Your task to perform on an android device: turn on data saver in the chrome app Image 0: 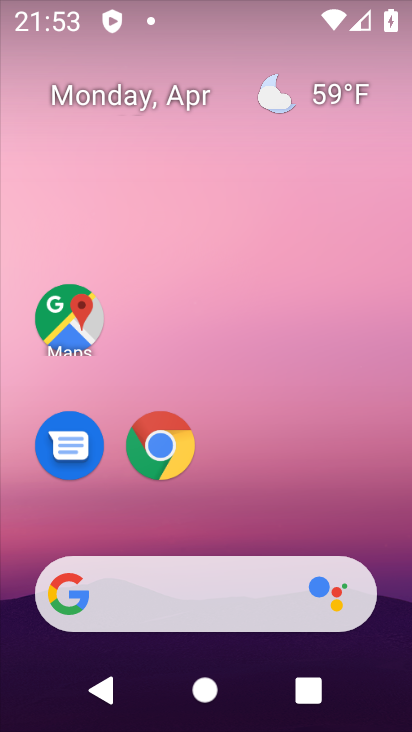
Step 0: click (167, 441)
Your task to perform on an android device: turn on data saver in the chrome app Image 1: 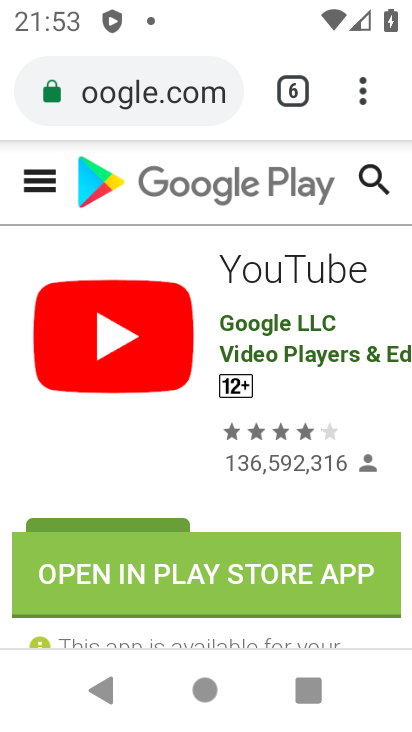
Step 1: click (364, 97)
Your task to perform on an android device: turn on data saver in the chrome app Image 2: 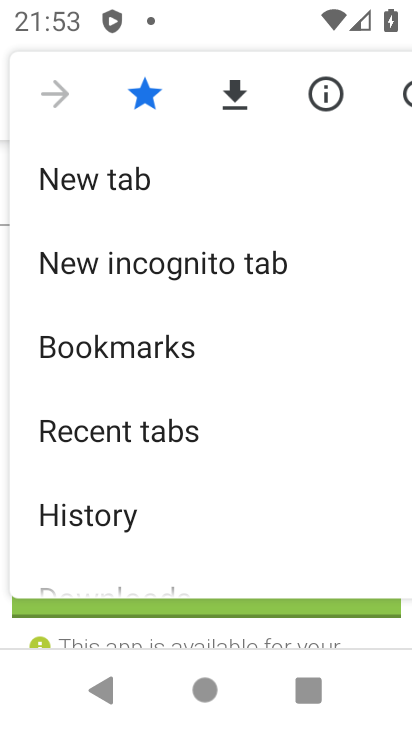
Step 2: drag from (242, 475) to (290, 150)
Your task to perform on an android device: turn on data saver in the chrome app Image 3: 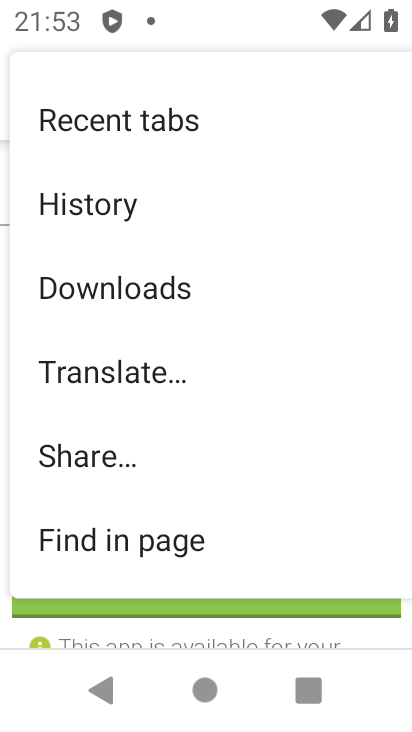
Step 3: drag from (223, 448) to (243, 103)
Your task to perform on an android device: turn on data saver in the chrome app Image 4: 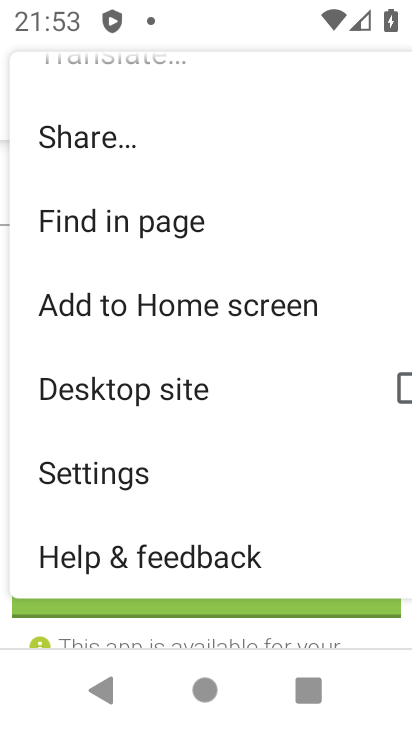
Step 4: click (158, 470)
Your task to perform on an android device: turn on data saver in the chrome app Image 5: 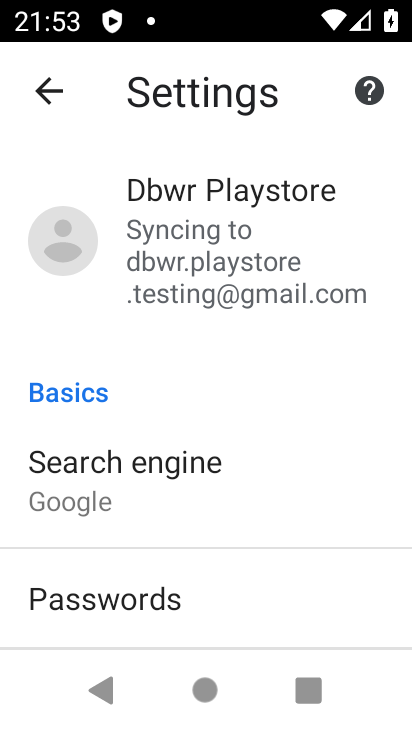
Step 5: drag from (233, 558) to (284, 221)
Your task to perform on an android device: turn on data saver in the chrome app Image 6: 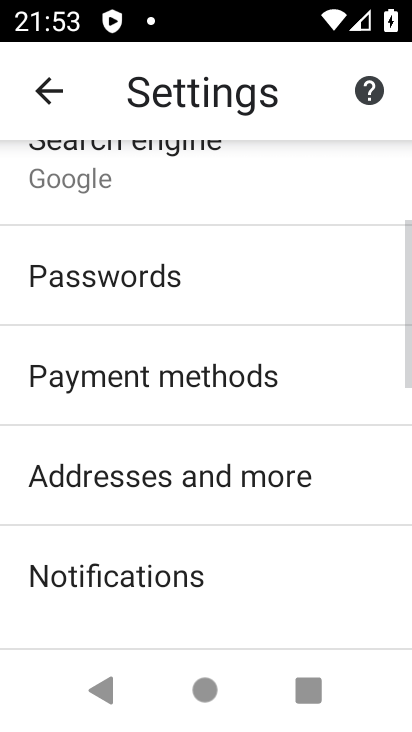
Step 6: drag from (217, 597) to (263, 271)
Your task to perform on an android device: turn on data saver in the chrome app Image 7: 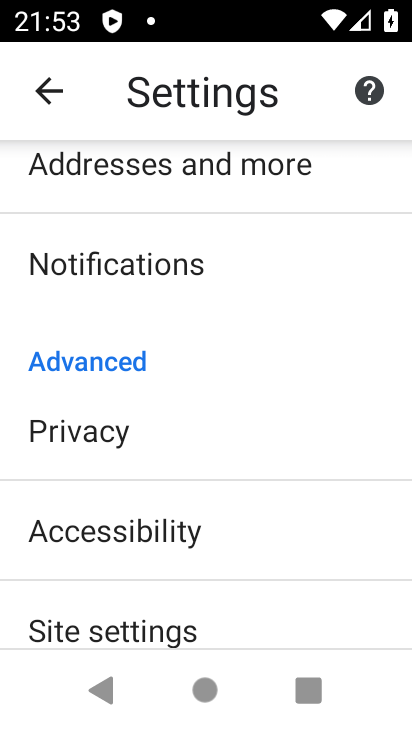
Step 7: drag from (238, 584) to (258, 355)
Your task to perform on an android device: turn on data saver in the chrome app Image 8: 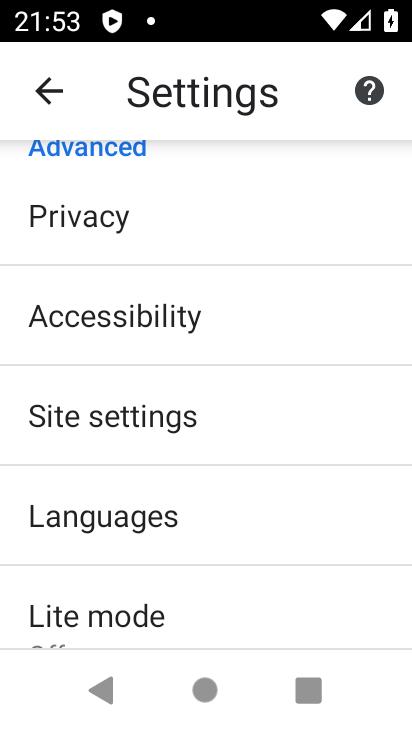
Step 8: drag from (242, 558) to (287, 365)
Your task to perform on an android device: turn on data saver in the chrome app Image 9: 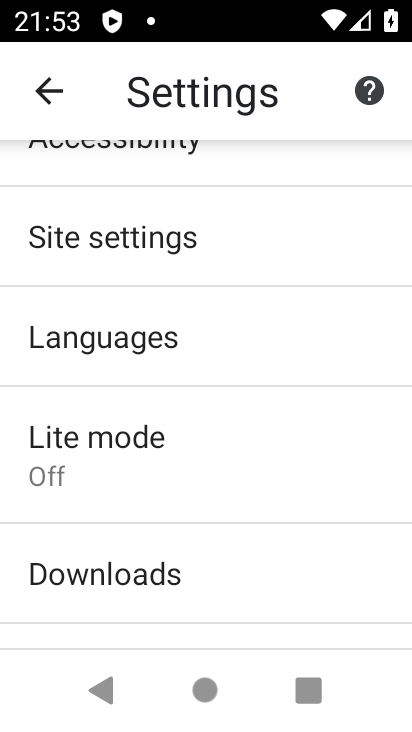
Step 9: click (229, 454)
Your task to perform on an android device: turn on data saver in the chrome app Image 10: 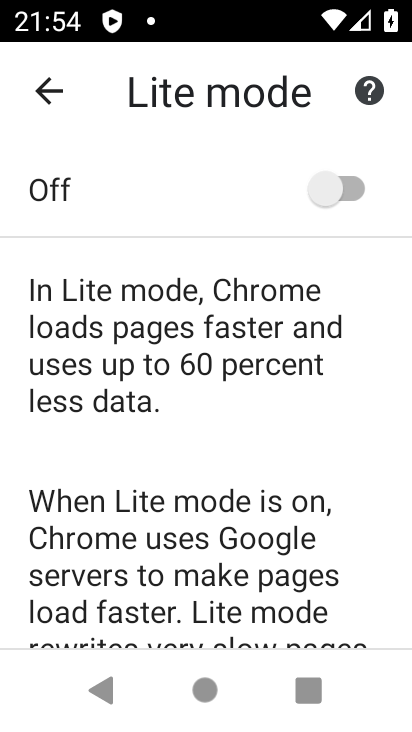
Step 10: click (353, 181)
Your task to perform on an android device: turn on data saver in the chrome app Image 11: 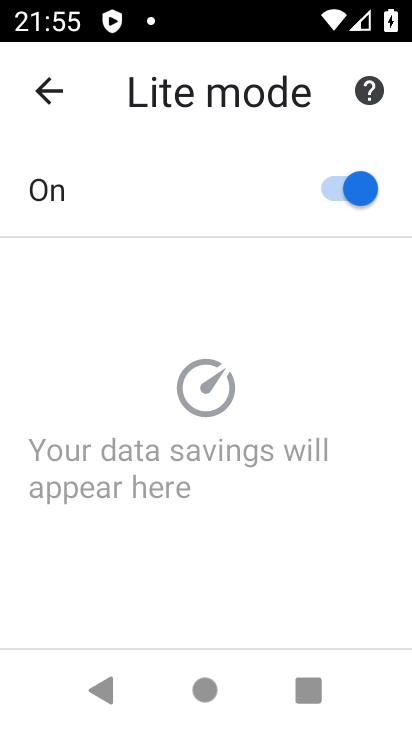
Step 11: task complete